Your task to perform on an android device: Show me popular games on the Play Store Image 0: 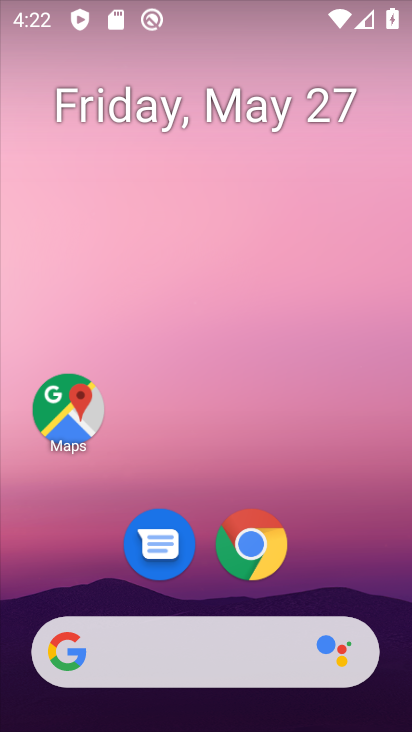
Step 0: drag from (76, 597) to (175, 127)
Your task to perform on an android device: Show me popular games on the Play Store Image 1: 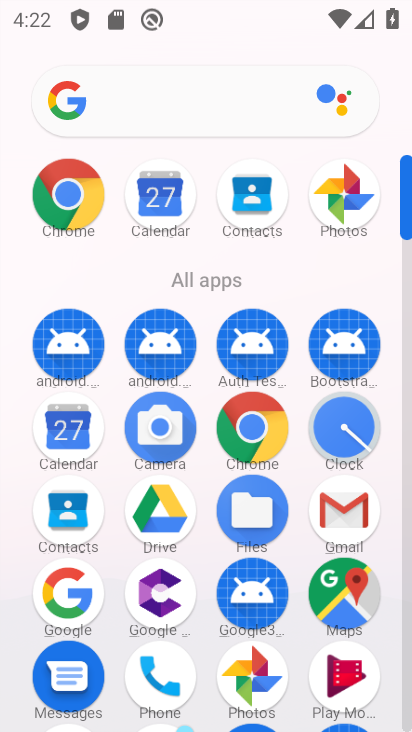
Step 1: drag from (190, 638) to (236, 401)
Your task to perform on an android device: Show me popular games on the Play Store Image 2: 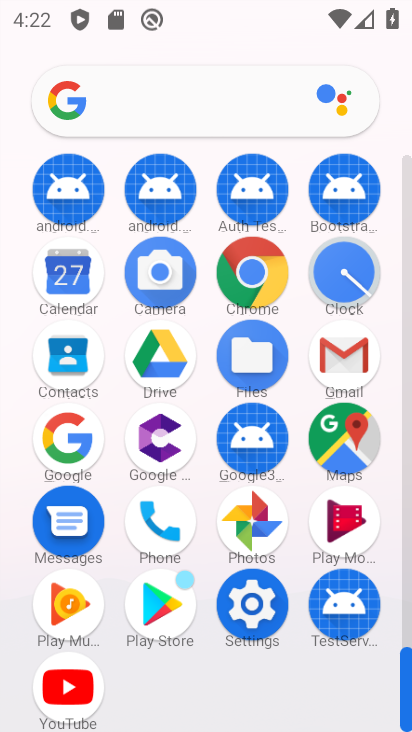
Step 2: click (172, 610)
Your task to perform on an android device: Show me popular games on the Play Store Image 3: 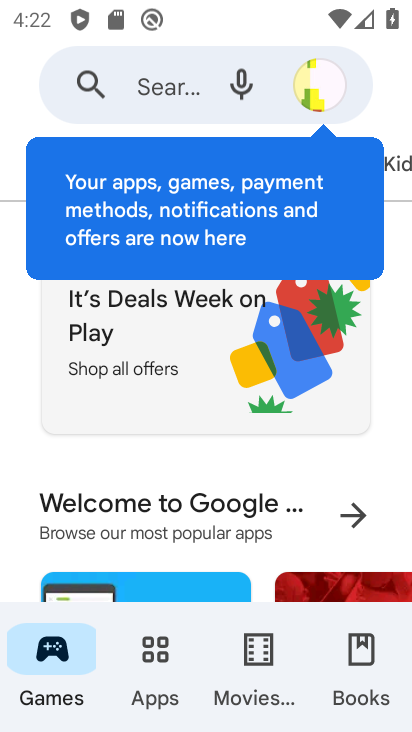
Step 3: drag from (190, 503) to (308, 109)
Your task to perform on an android device: Show me popular games on the Play Store Image 4: 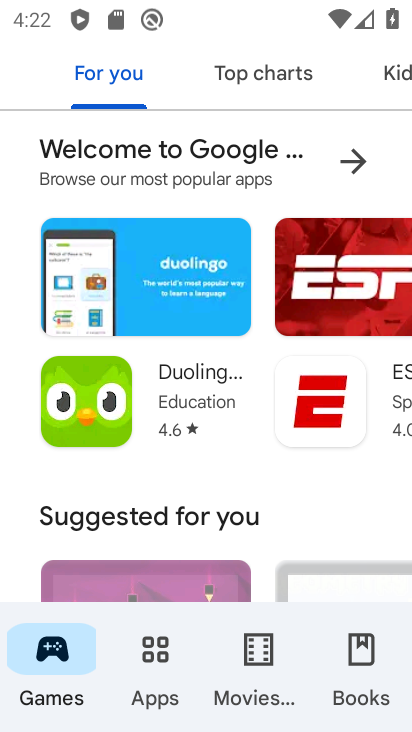
Step 4: drag from (222, 577) to (315, 99)
Your task to perform on an android device: Show me popular games on the Play Store Image 5: 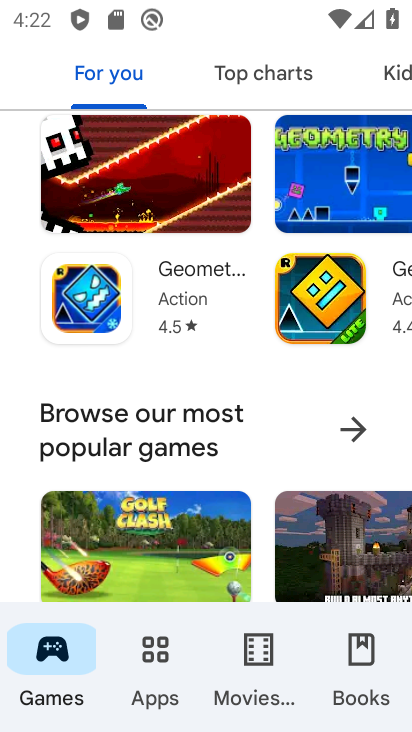
Step 5: click (369, 434)
Your task to perform on an android device: Show me popular games on the Play Store Image 6: 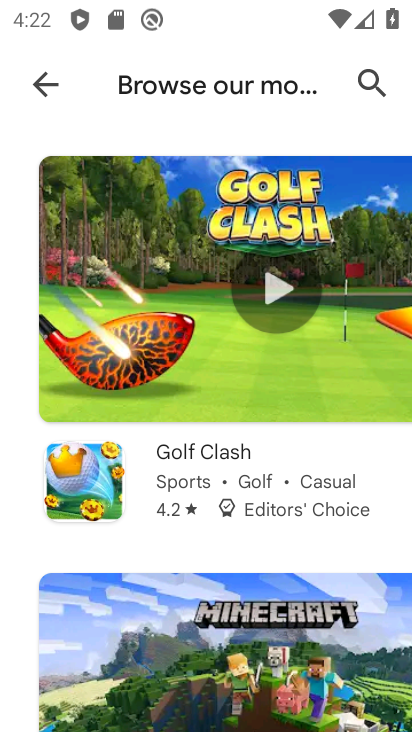
Step 6: task complete